Your task to perform on an android device: turn on priority inbox in the gmail app Image 0: 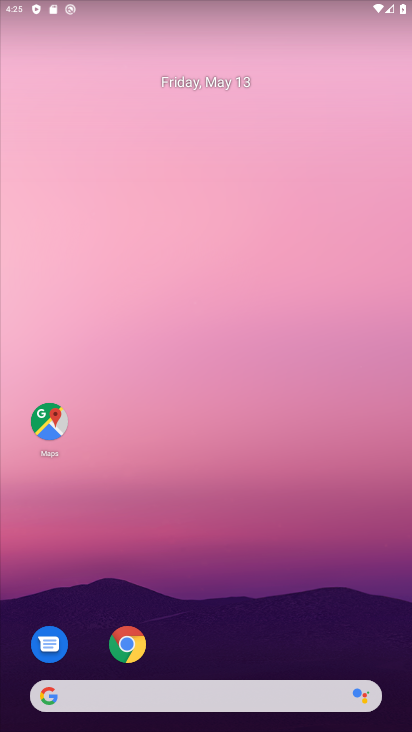
Step 0: drag from (213, 624) to (276, 135)
Your task to perform on an android device: turn on priority inbox in the gmail app Image 1: 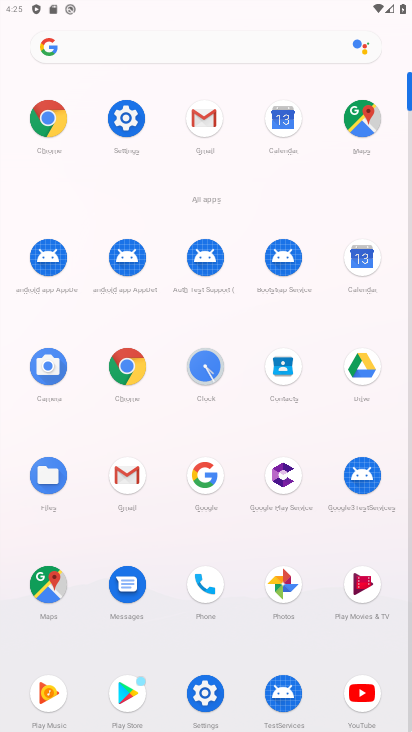
Step 1: click (205, 109)
Your task to perform on an android device: turn on priority inbox in the gmail app Image 2: 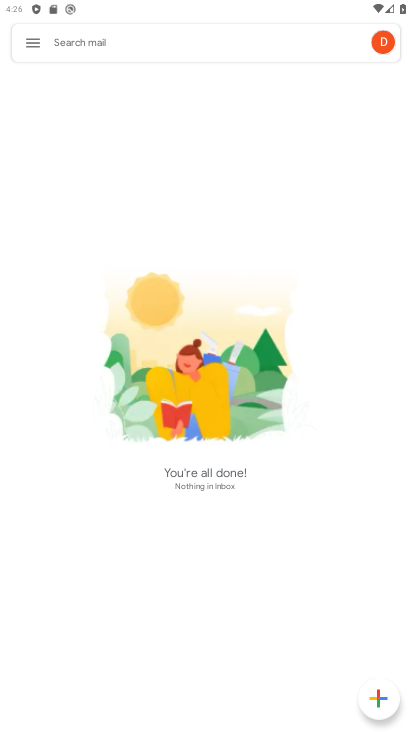
Step 2: click (36, 44)
Your task to perform on an android device: turn on priority inbox in the gmail app Image 3: 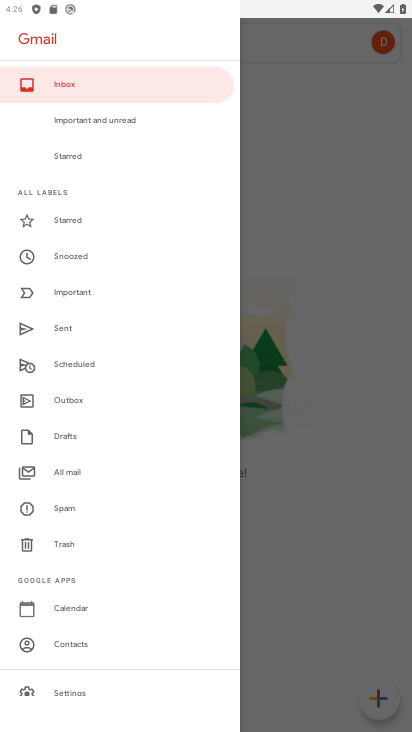
Step 3: drag from (85, 672) to (177, 298)
Your task to perform on an android device: turn on priority inbox in the gmail app Image 4: 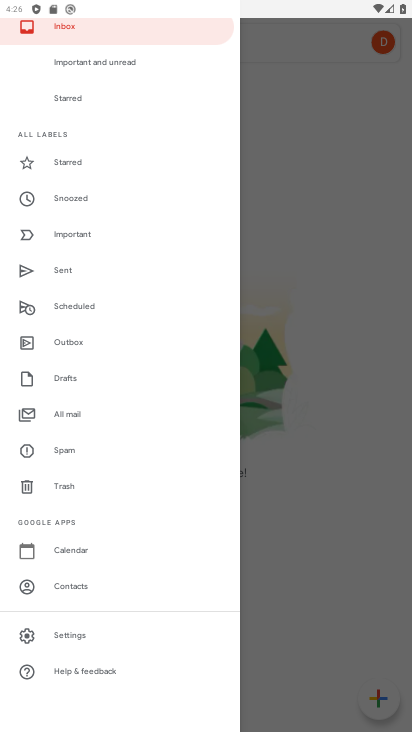
Step 4: click (72, 639)
Your task to perform on an android device: turn on priority inbox in the gmail app Image 5: 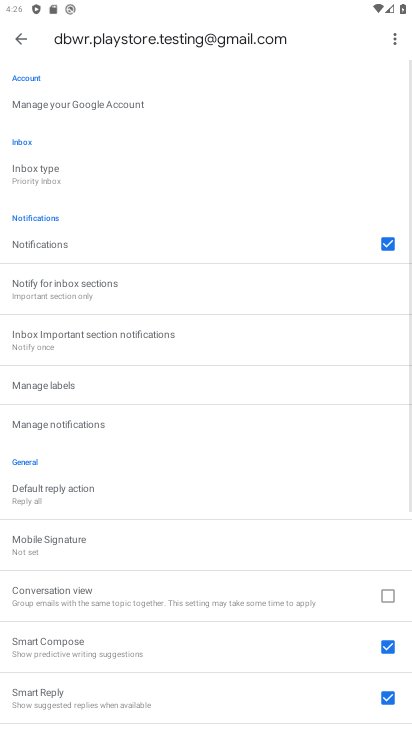
Step 5: click (81, 181)
Your task to perform on an android device: turn on priority inbox in the gmail app Image 6: 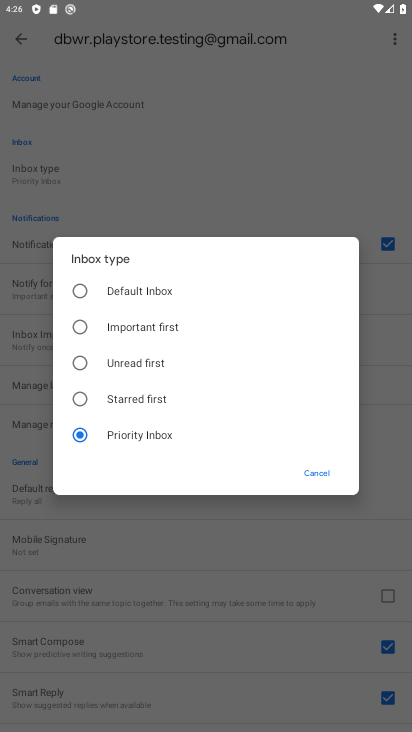
Step 6: task complete